Your task to perform on an android device: make emails show in primary in the gmail app Image 0: 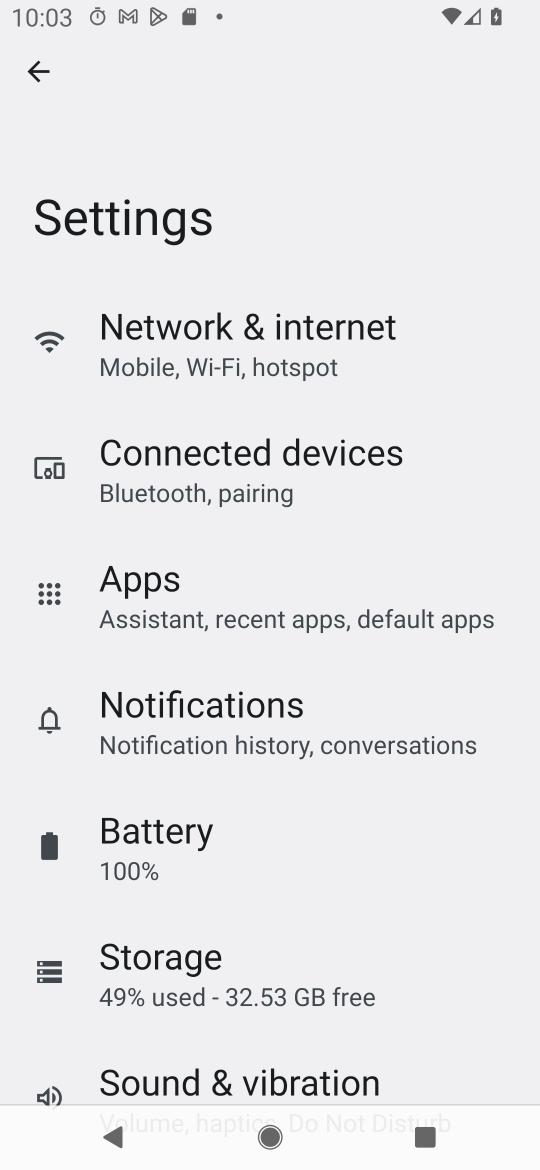
Step 0: press home button
Your task to perform on an android device: make emails show in primary in the gmail app Image 1: 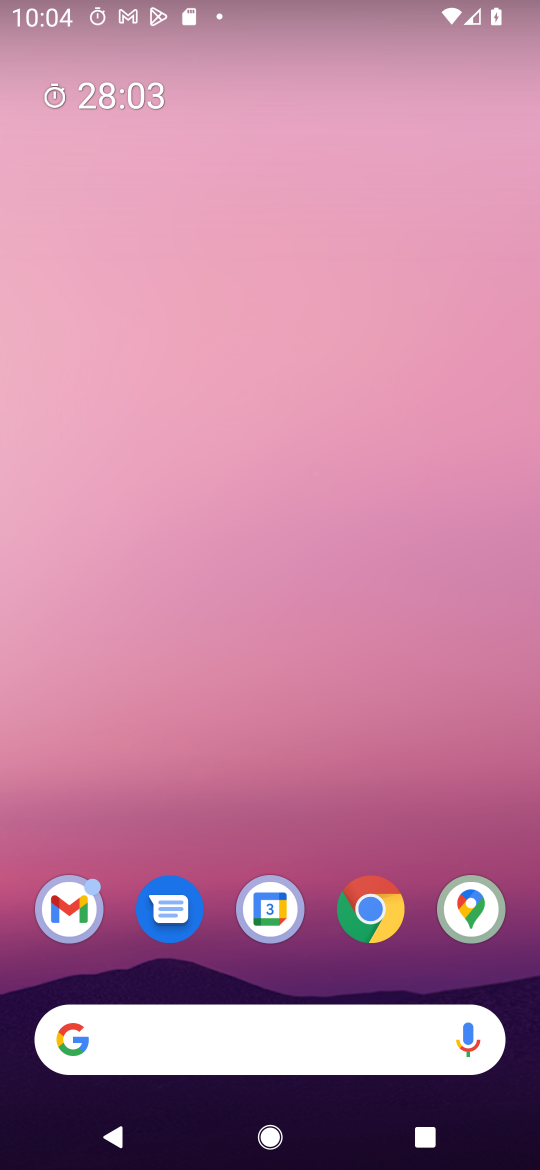
Step 1: drag from (444, 841) to (392, 116)
Your task to perform on an android device: make emails show in primary in the gmail app Image 2: 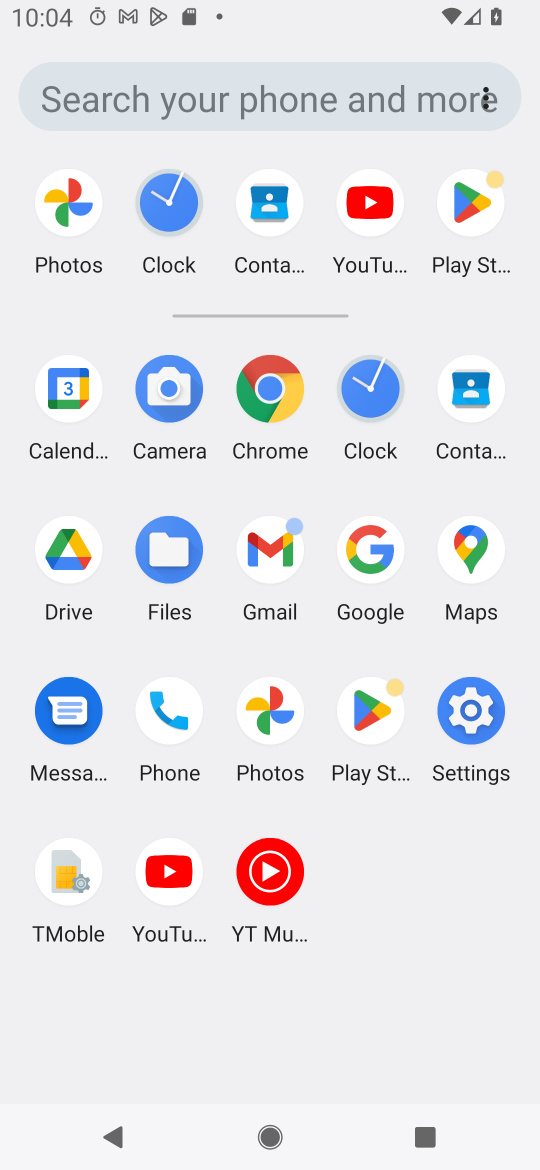
Step 2: click (288, 547)
Your task to perform on an android device: make emails show in primary in the gmail app Image 3: 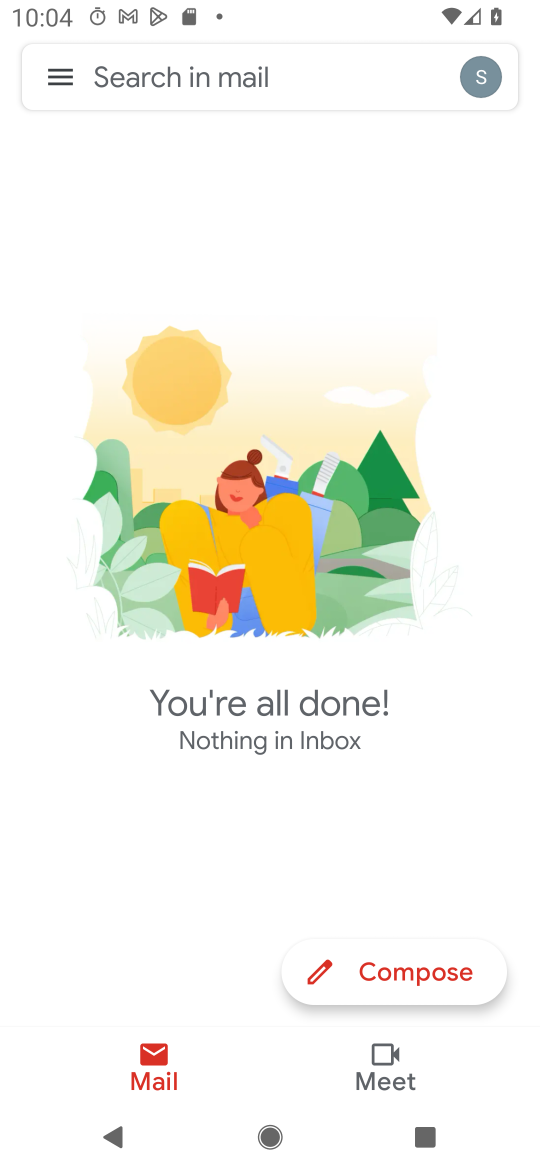
Step 3: click (57, 75)
Your task to perform on an android device: make emails show in primary in the gmail app Image 4: 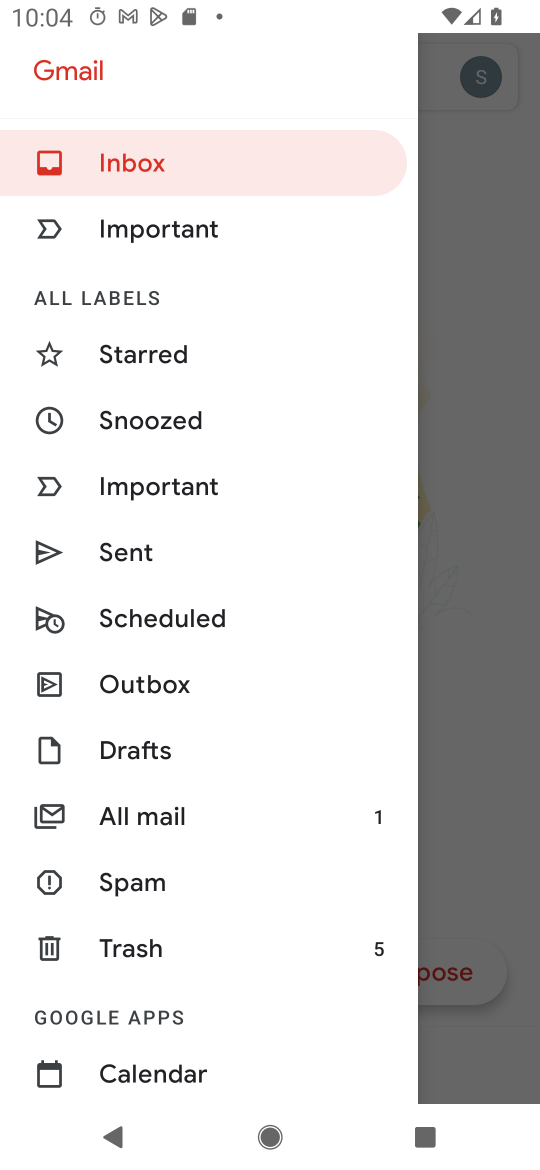
Step 4: drag from (299, 818) to (299, 603)
Your task to perform on an android device: make emails show in primary in the gmail app Image 5: 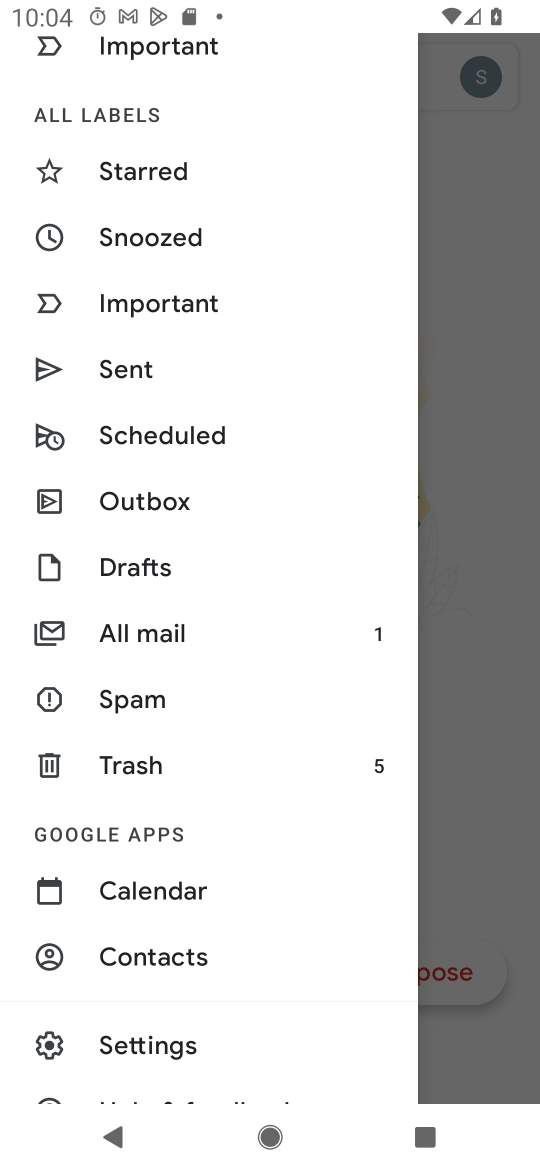
Step 5: click (263, 1061)
Your task to perform on an android device: make emails show in primary in the gmail app Image 6: 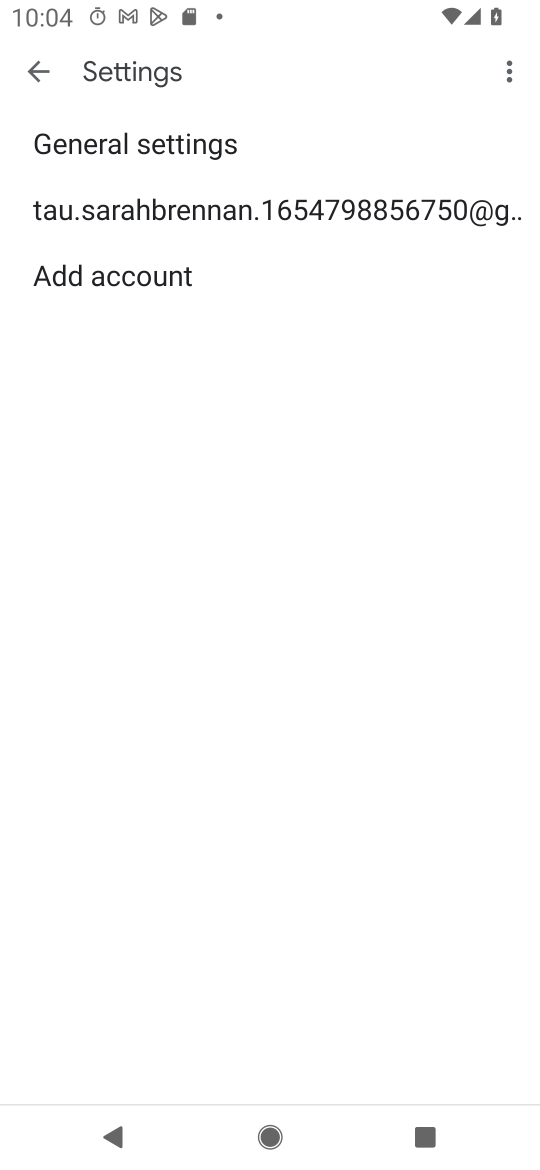
Step 6: click (320, 208)
Your task to perform on an android device: make emails show in primary in the gmail app Image 7: 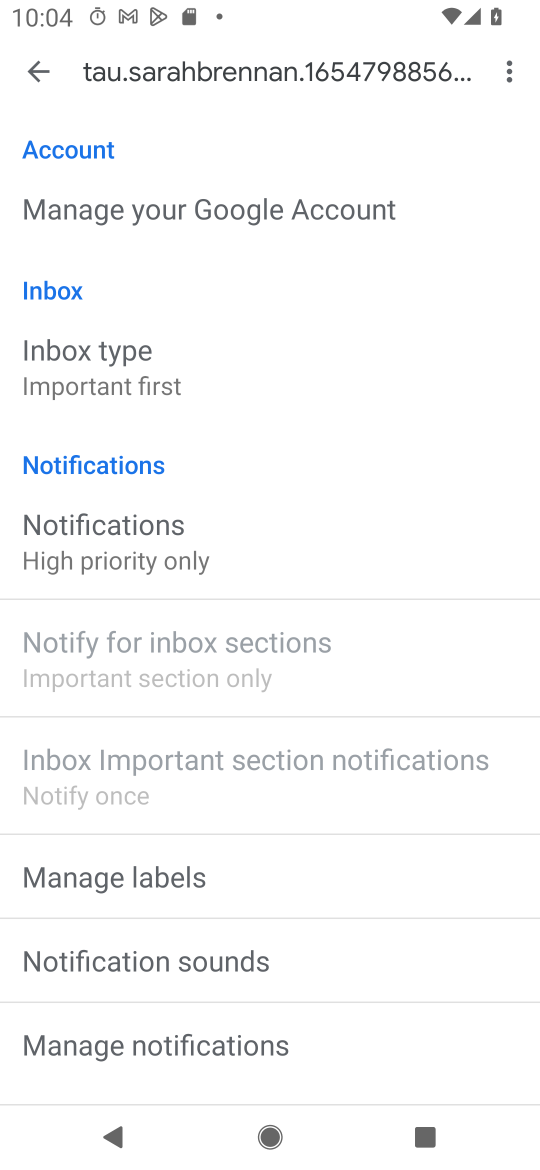
Step 7: click (177, 364)
Your task to perform on an android device: make emails show in primary in the gmail app Image 8: 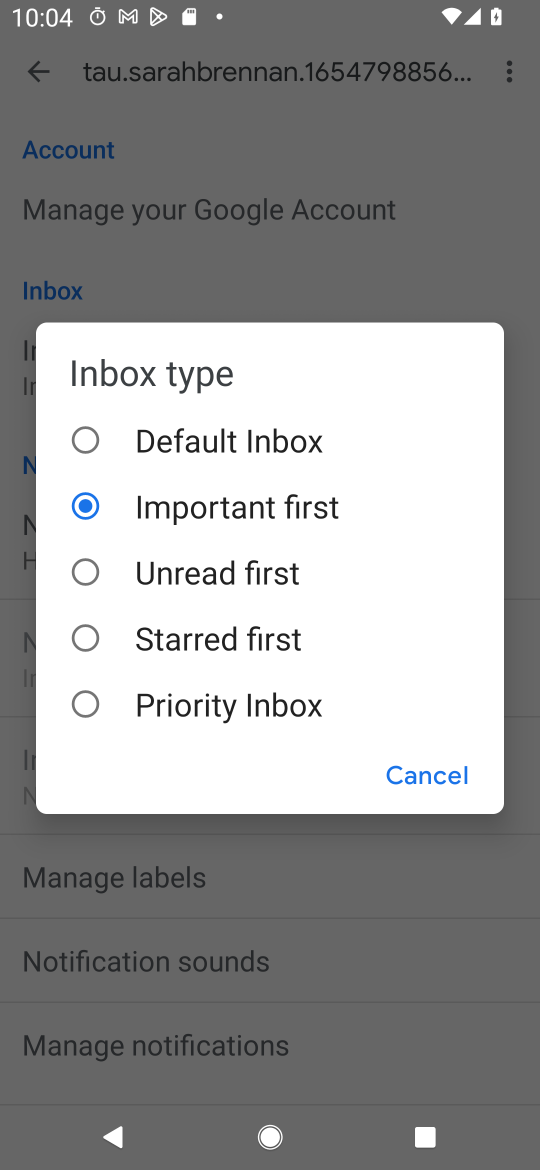
Step 8: click (163, 439)
Your task to perform on an android device: make emails show in primary in the gmail app Image 9: 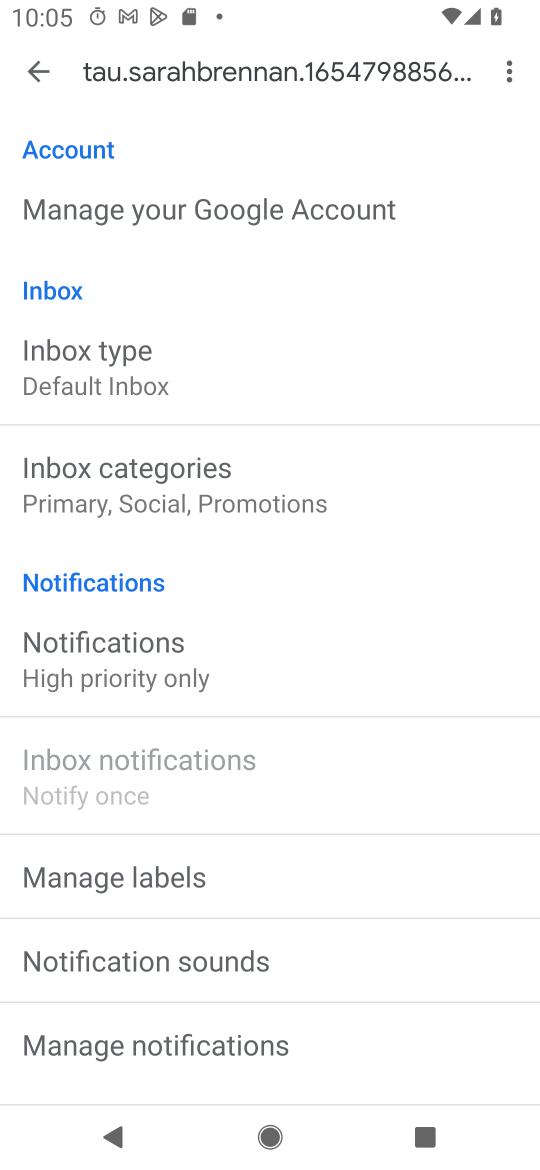
Step 9: click (137, 506)
Your task to perform on an android device: make emails show in primary in the gmail app Image 10: 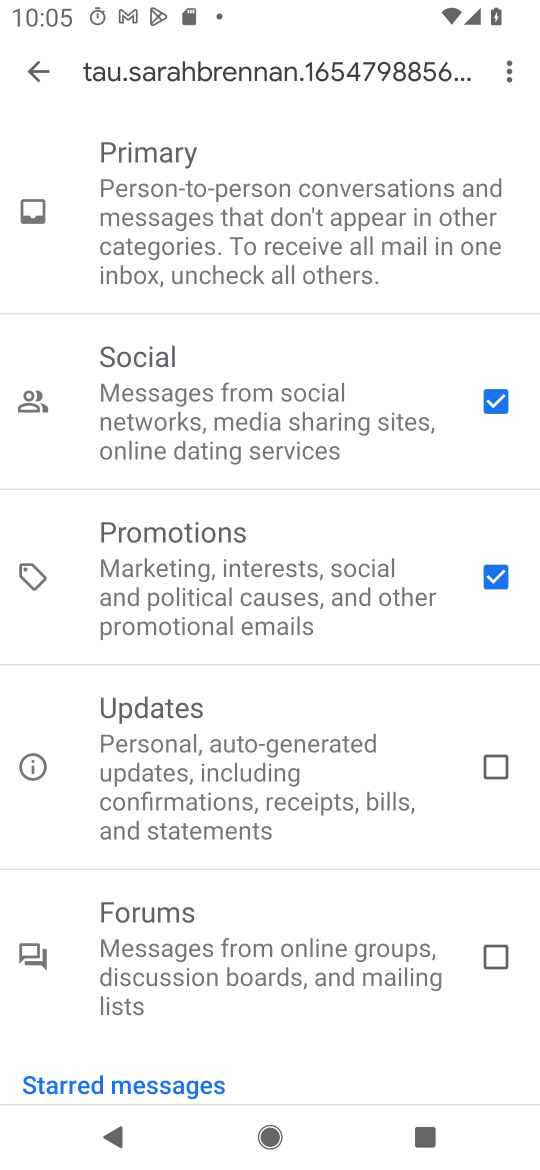
Step 10: click (490, 573)
Your task to perform on an android device: make emails show in primary in the gmail app Image 11: 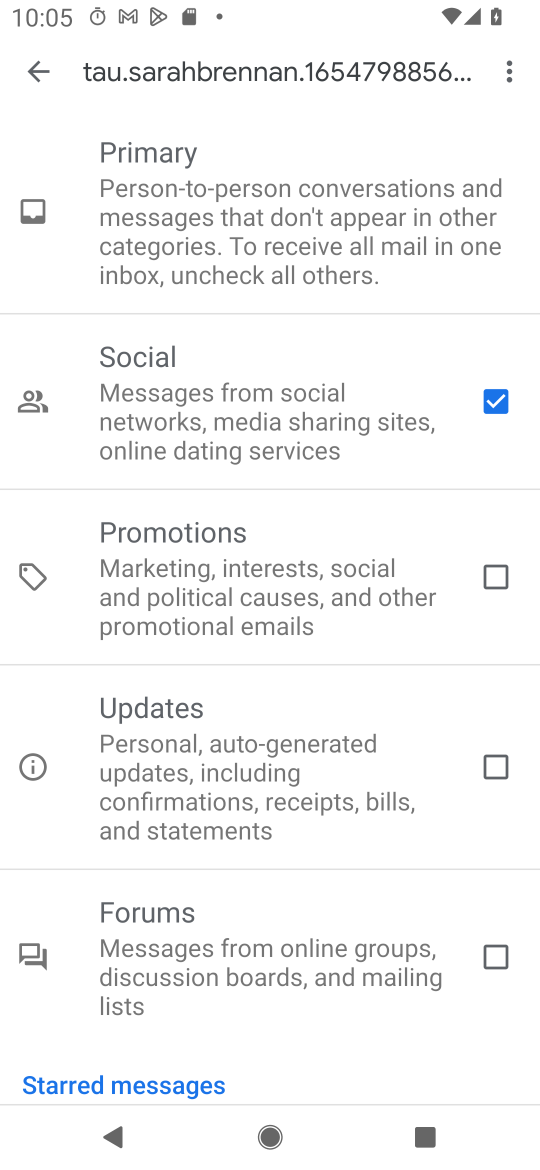
Step 11: click (499, 398)
Your task to perform on an android device: make emails show in primary in the gmail app Image 12: 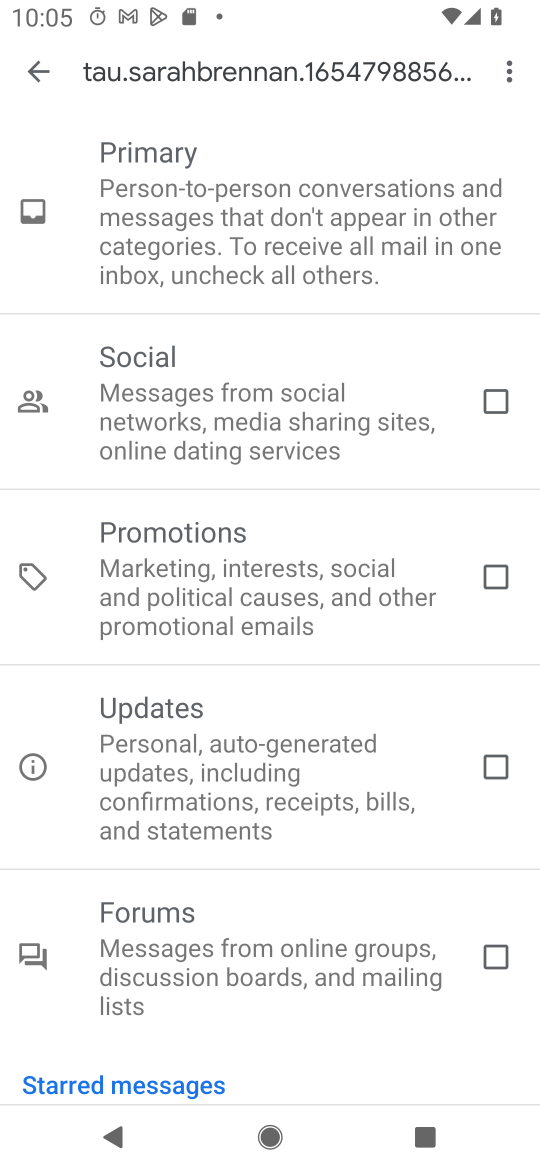
Step 12: task complete